Your task to perform on an android device: open app "Messenger Lite" (install if not already installed) Image 0: 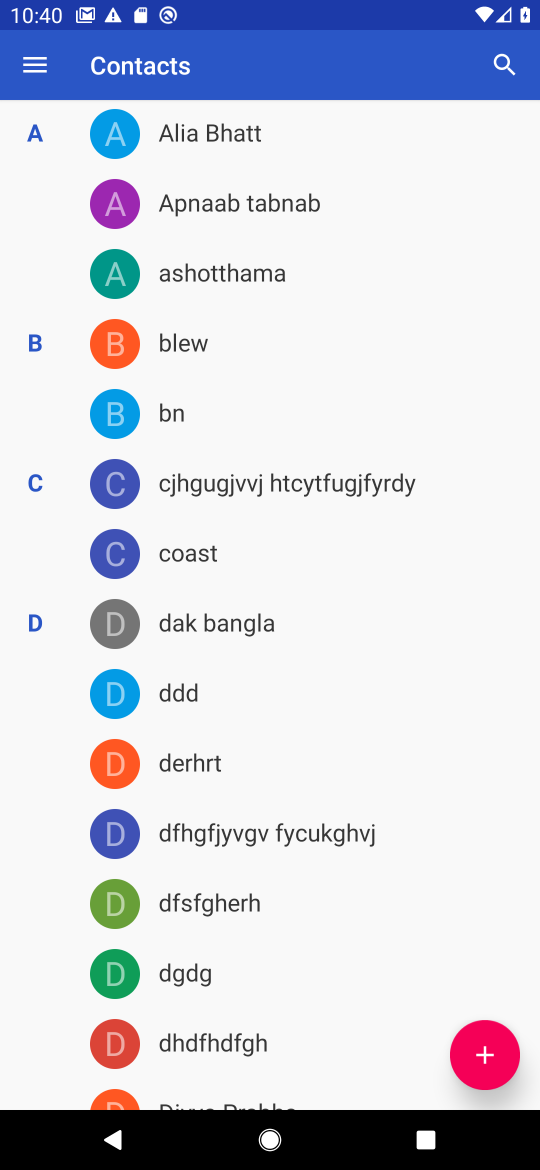
Step 0: press back button
Your task to perform on an android device: open app "Messenger Lite" (install if not already installed) Image 1: 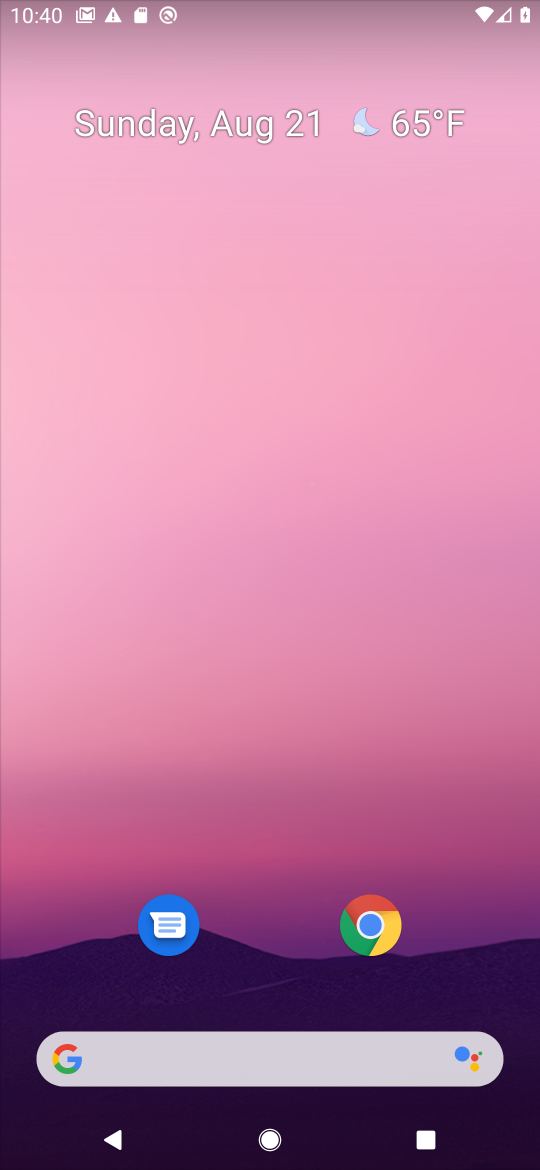
Step 1: drag from (227, 959) to (414, 287)
Your task to perform on an android device: open app "Messenger Lite" (install if not already installed) Image 2: 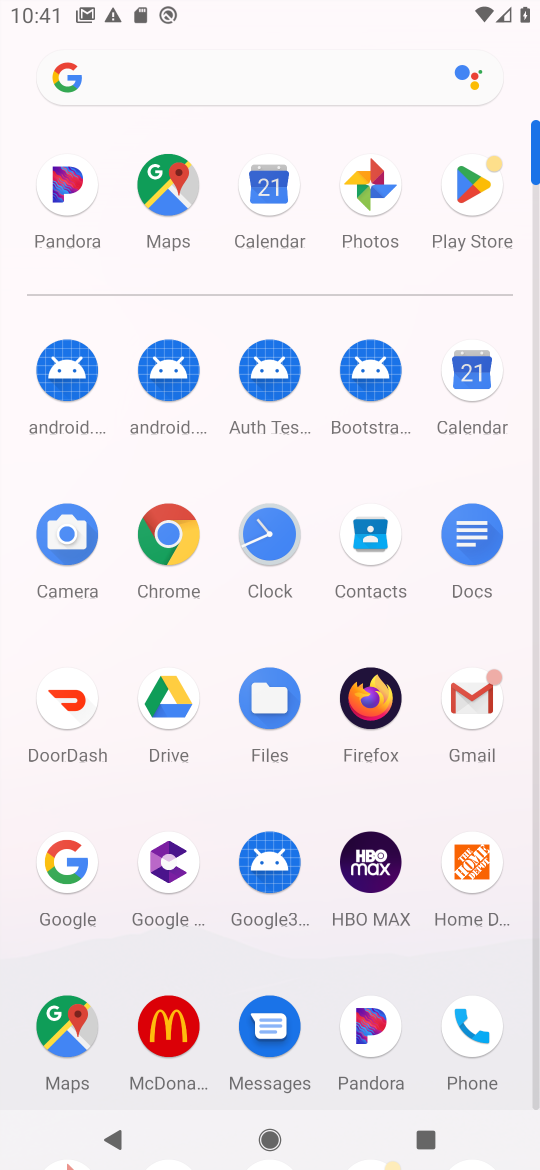
Step 2: click (462, 169)
Your task to perform on an android device: open app "Messenger Lite" (install if not already installed) Image 3: 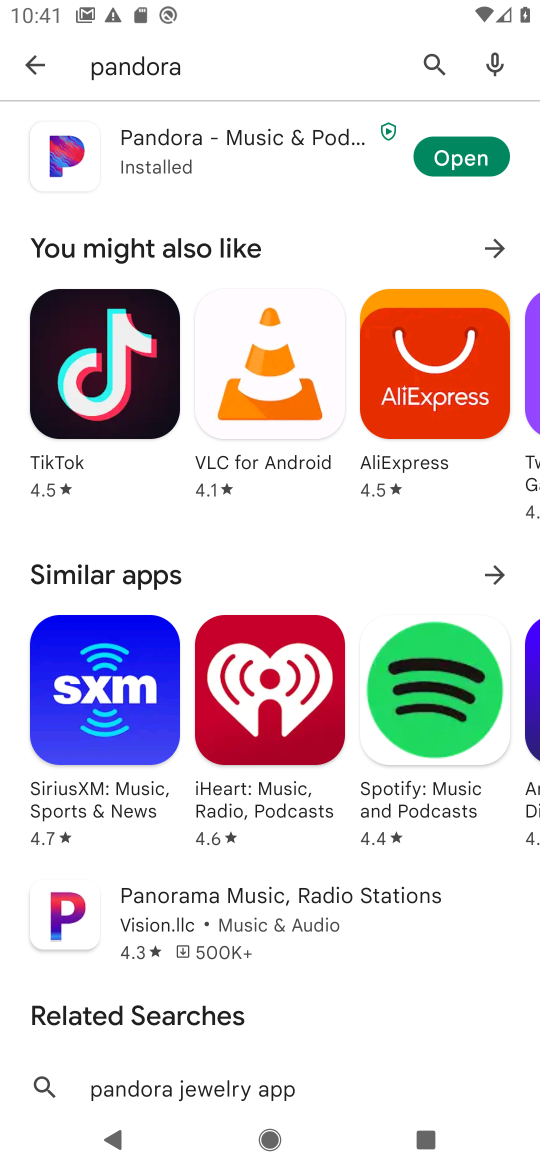
Step 3: click (429, 37)
Your task to perform on an android device: open app "Messenger Lite" (install if not already installed) Image 4: 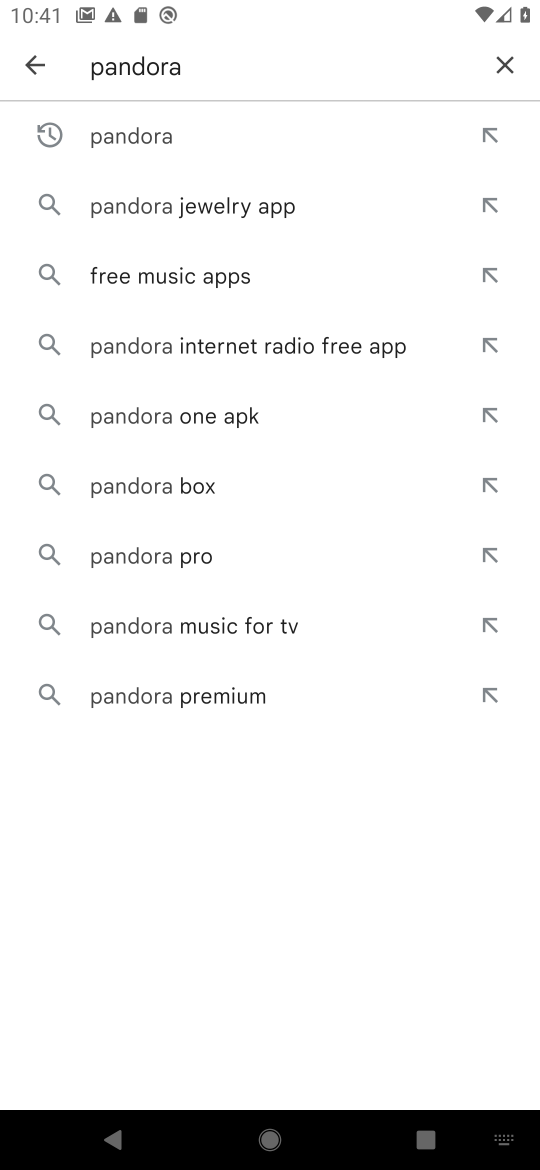
Step 4: click (503, 65)
Your task to perform on an android device: open app "Messenger Lite" (install if not already installed) Image 5: 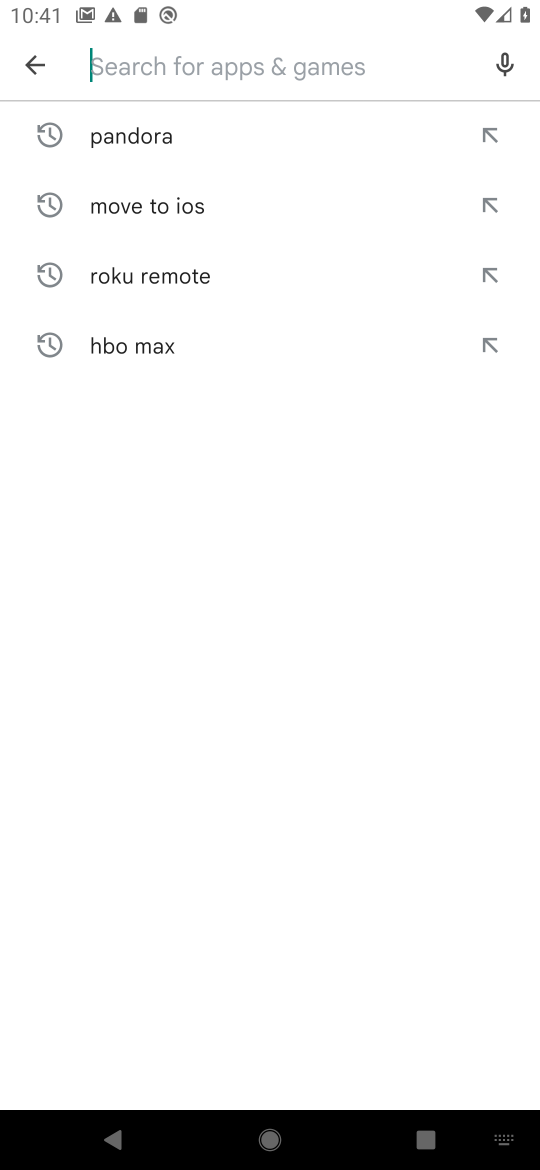
Step 5: click (186, 77)
Your task to perform on an android device: open app "Messenger Lite" (install if not already installed) Image 6: 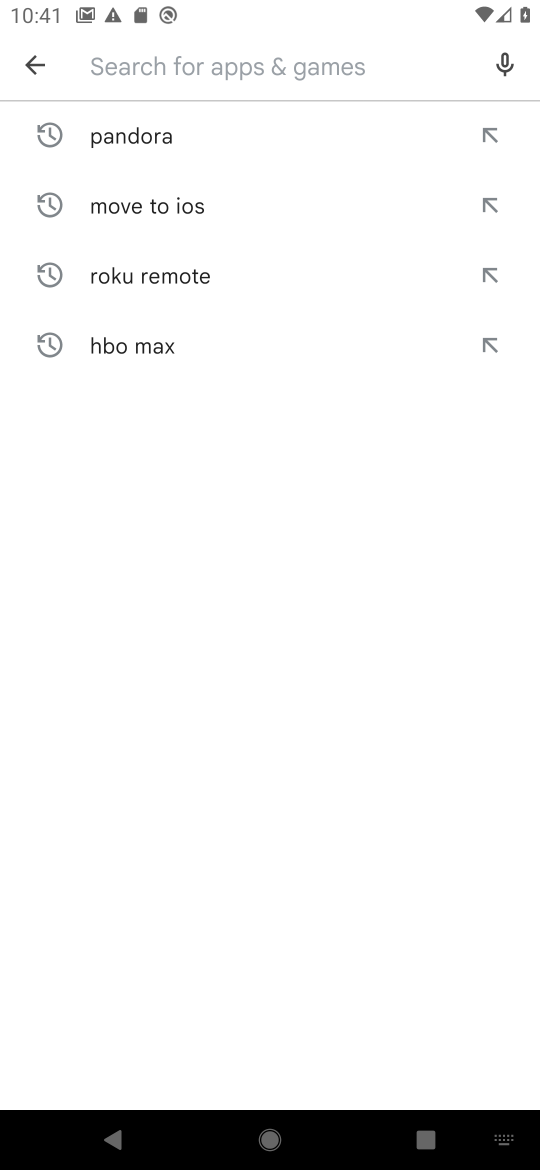
Step 6: type "Messenger Lite"
Your task to perform on an android device: open app "Messenger Lite" (install if not already installed) Image 7: 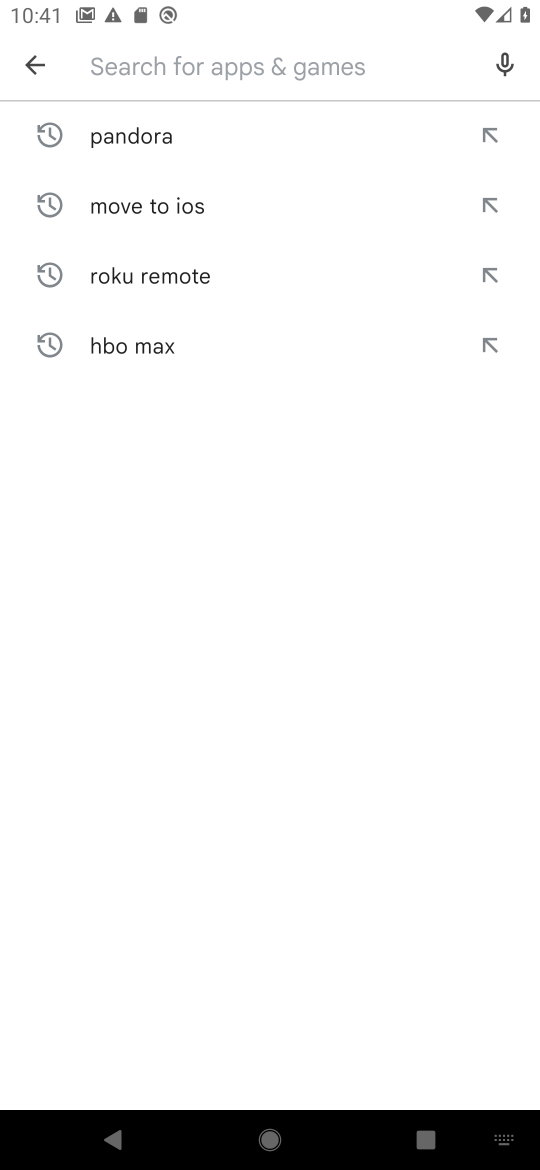
Step 7: click (244, 751)
Your task to perform on an android device: open app "Messenger Lite" (install if not already installed) Image 8: 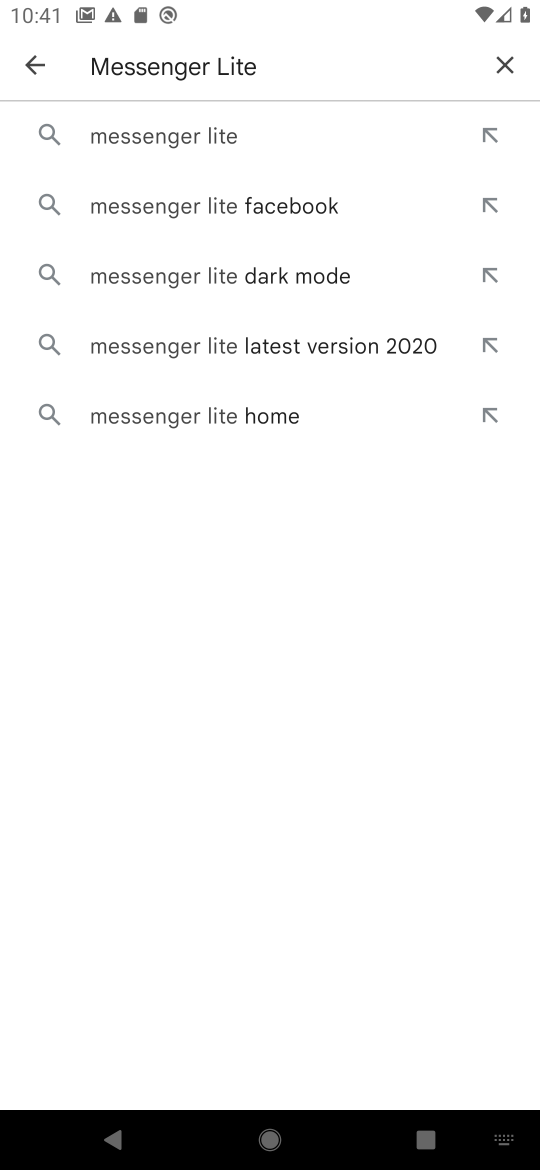
Step 8: click (182, 140)
Your task to perform on an android device: open app "Messenger Lite" (install if not already installed) Image 9: 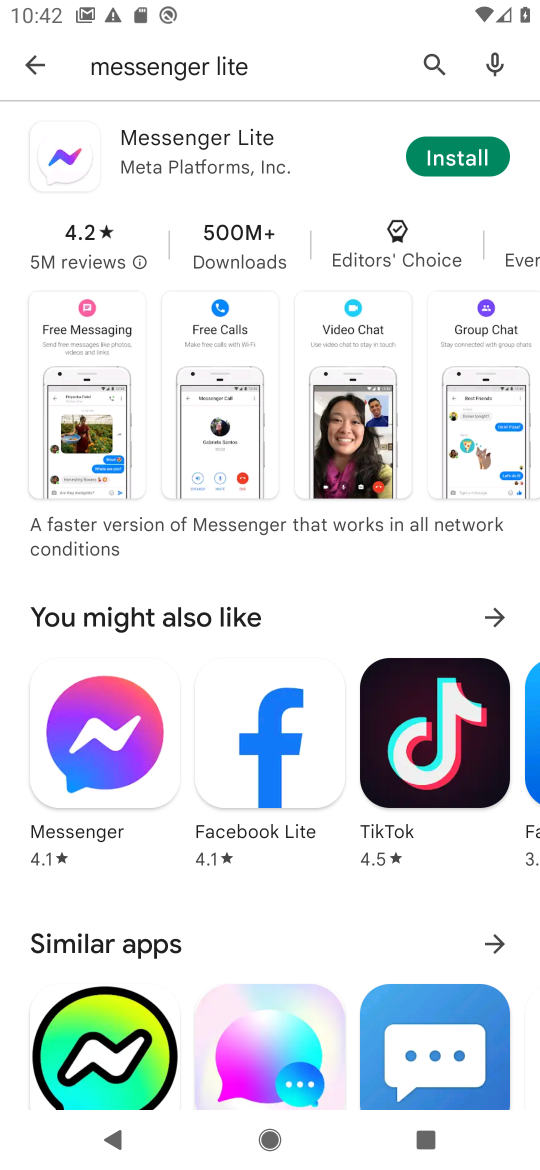
Step 9: click (481, 162)
Your task to perform on an android device: open app "Messenger Lite" (install if not already installed) Image 10: 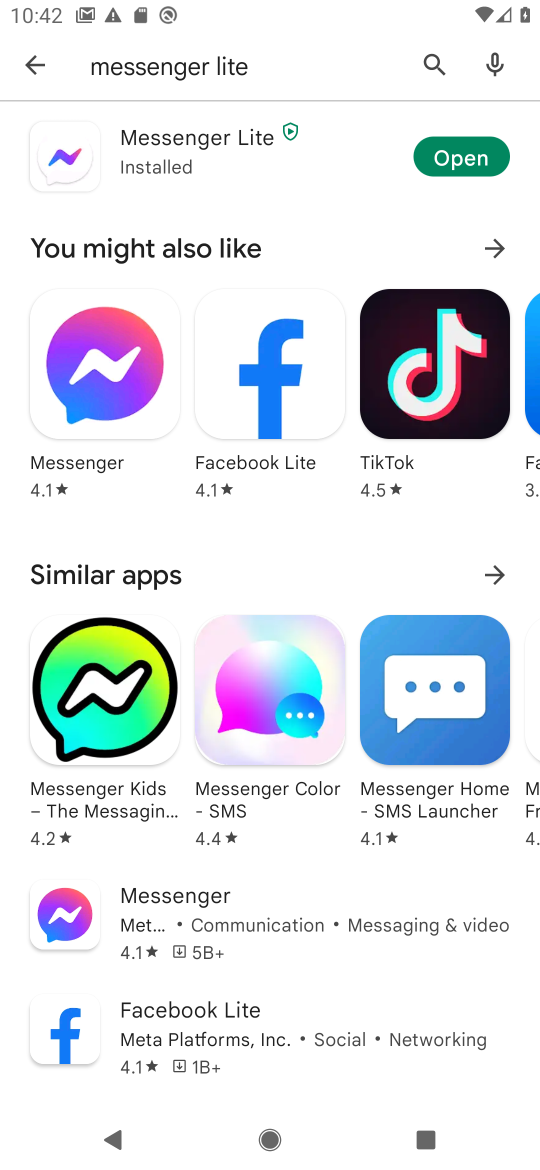
Step 10: click (466, 157)
Your task to perform on an android device: open app "Messenger Lite" (install if not already installed) Image 11: 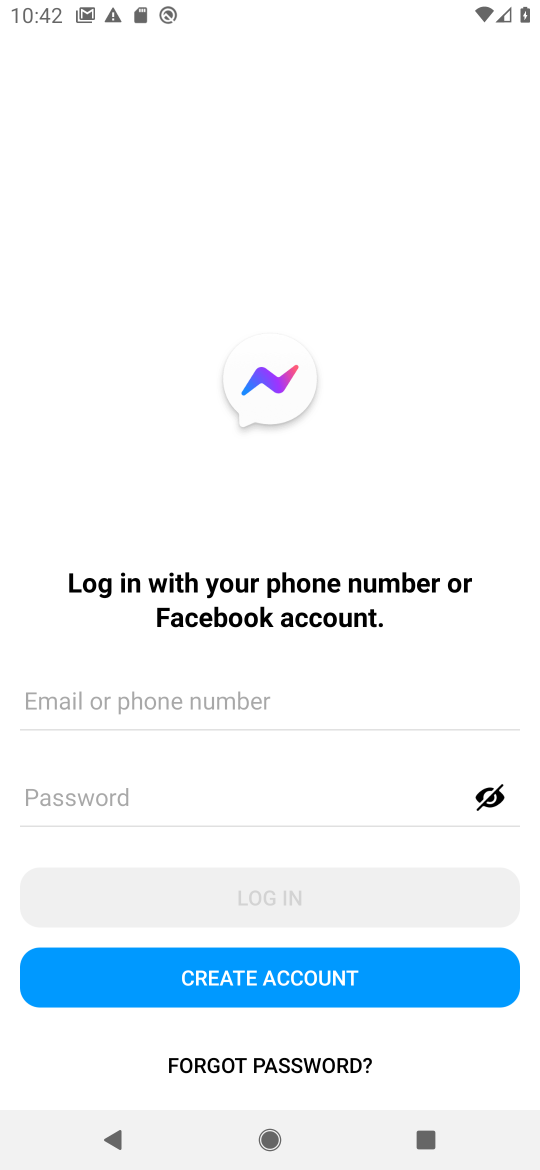
Step 11: task complete